Your task to perform on an android device: turn off location history Image 0: 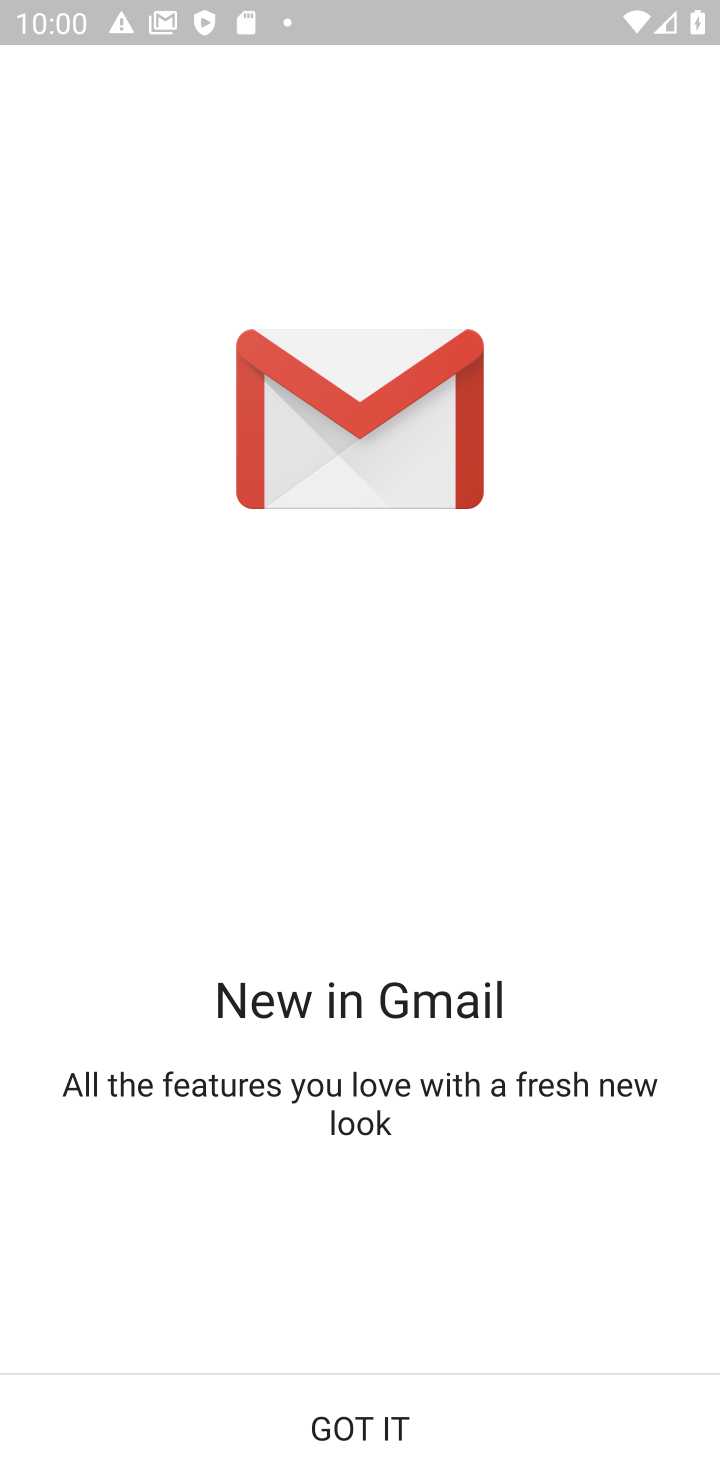
Step 0: press home button
Your task to perform on an android device: turn off location history Image 1: 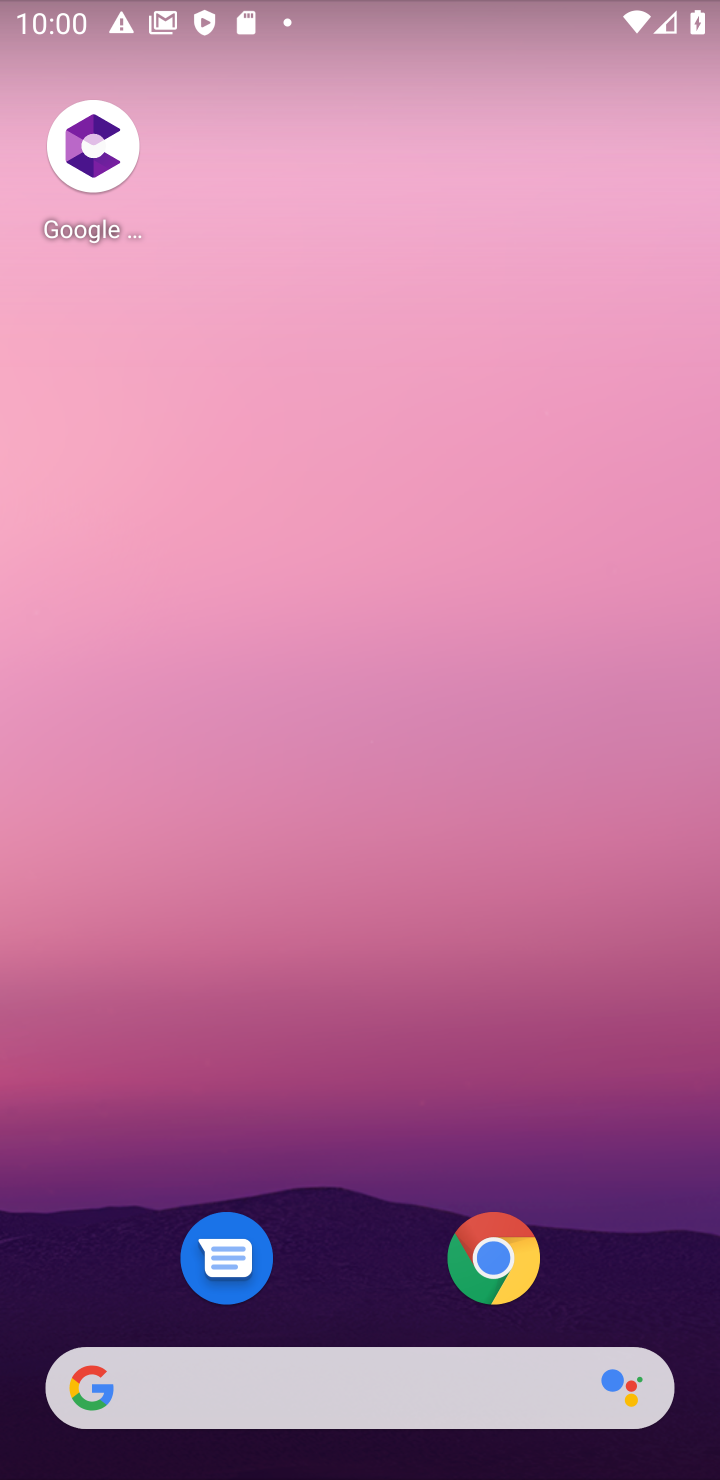
Step 1: drag from (329, 1300) to (405, 35)
Your task to perform on an android device: turn off location history Image 2: 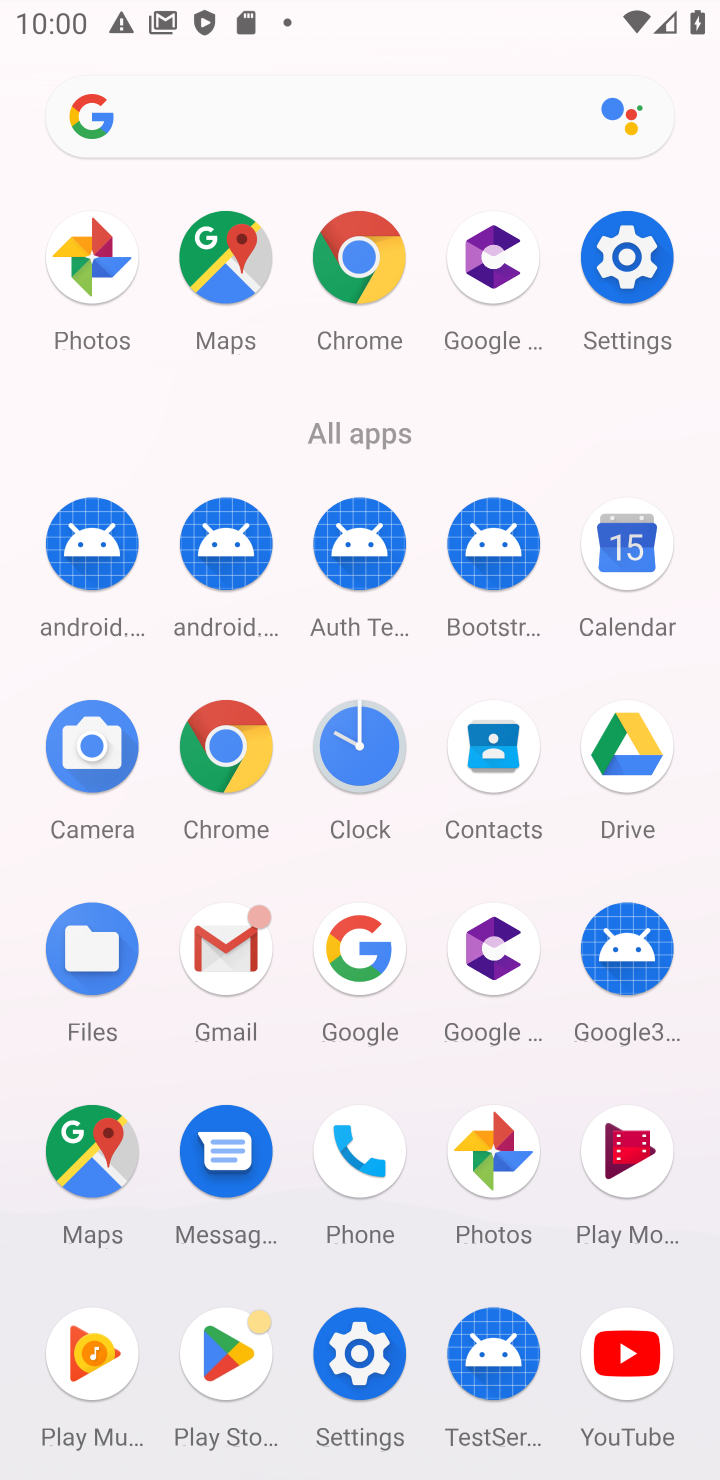
Step 2: click (366, 1350)
Your task to perform on an android device: turn off location history Image 3: 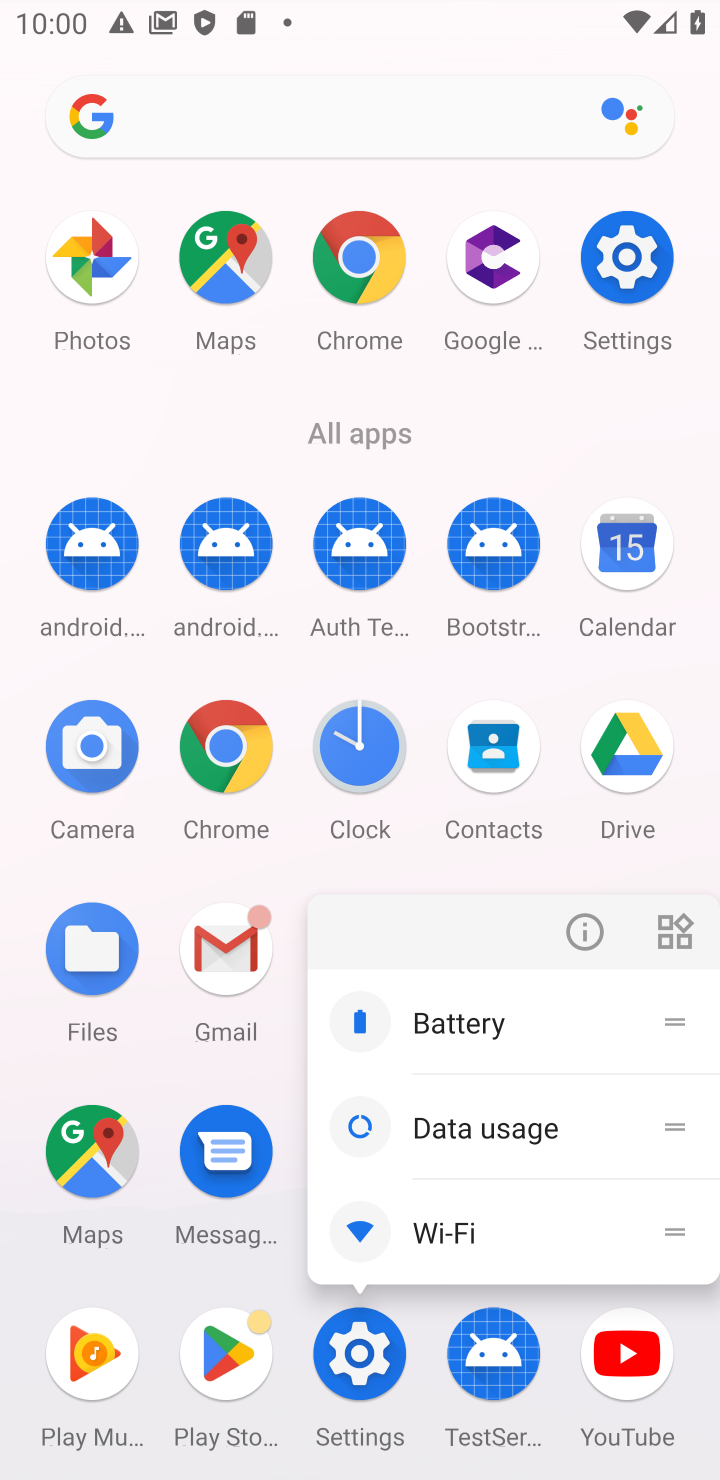
Step 3: click (355, 1348)
Your task to perform on an android device: turn off location history Image 4: 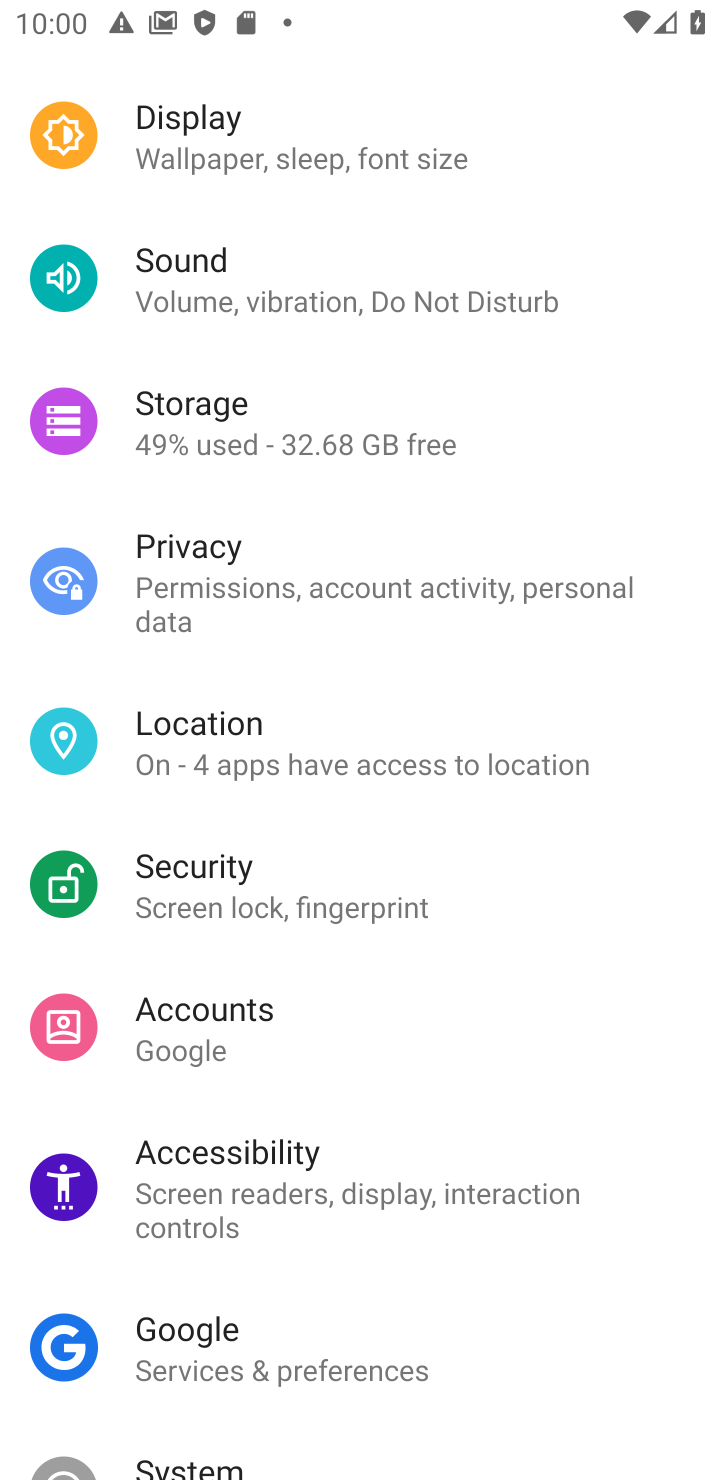
Step 4: drag from (309, 1330) to (379, 328)
Your task to perform on an android device: turn off location history Image 5: 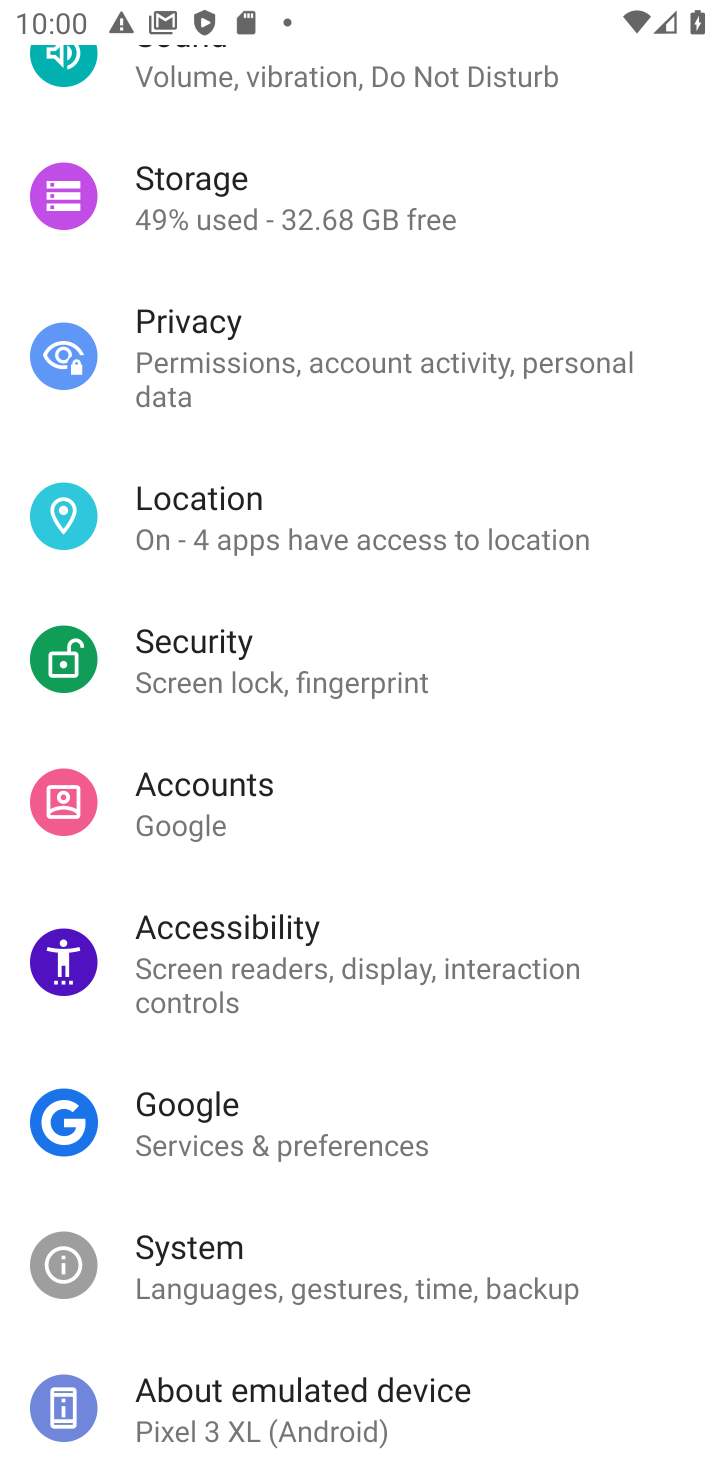
Step 5: click (239, 514)
Your task to perform on an android device: turn off location history Image 6: 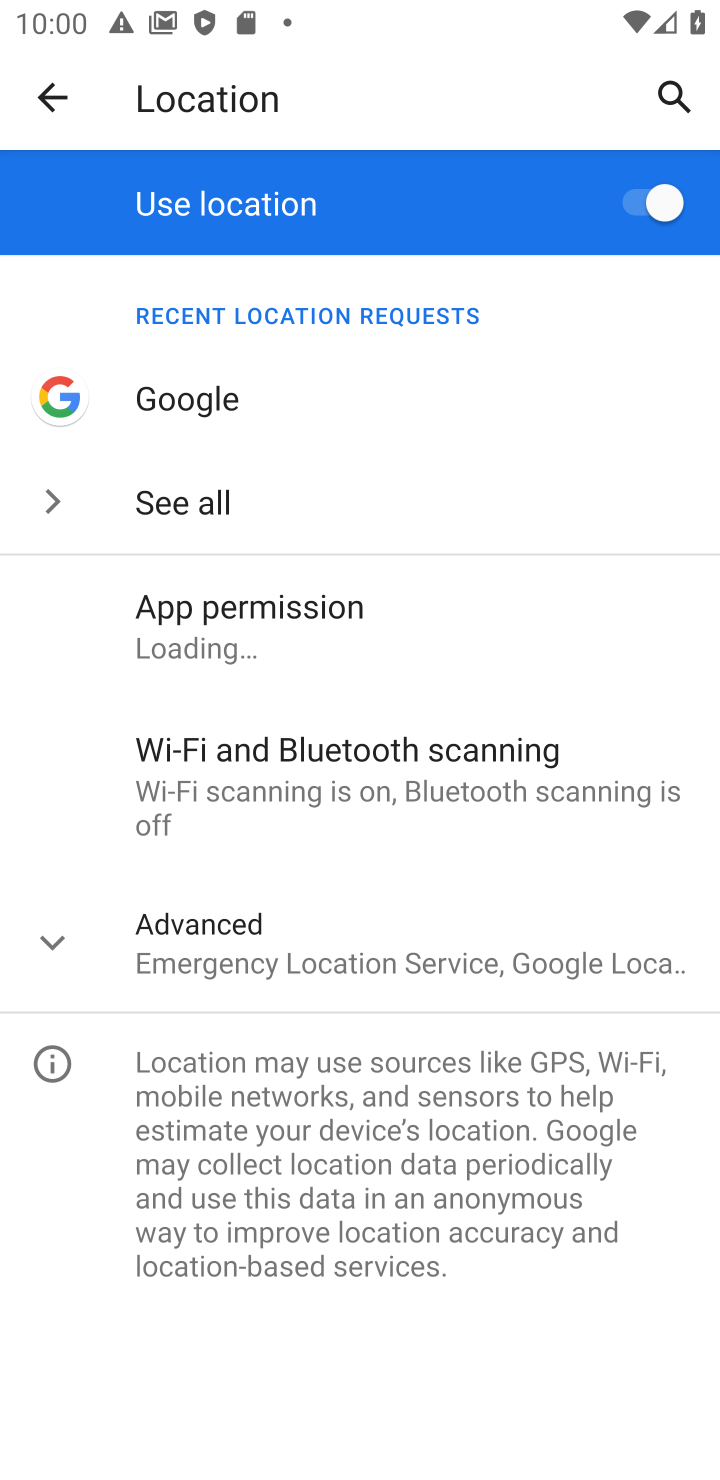
Step 6: click (239, 937)
Your task to perform on an android device: turn off location history Image 7: 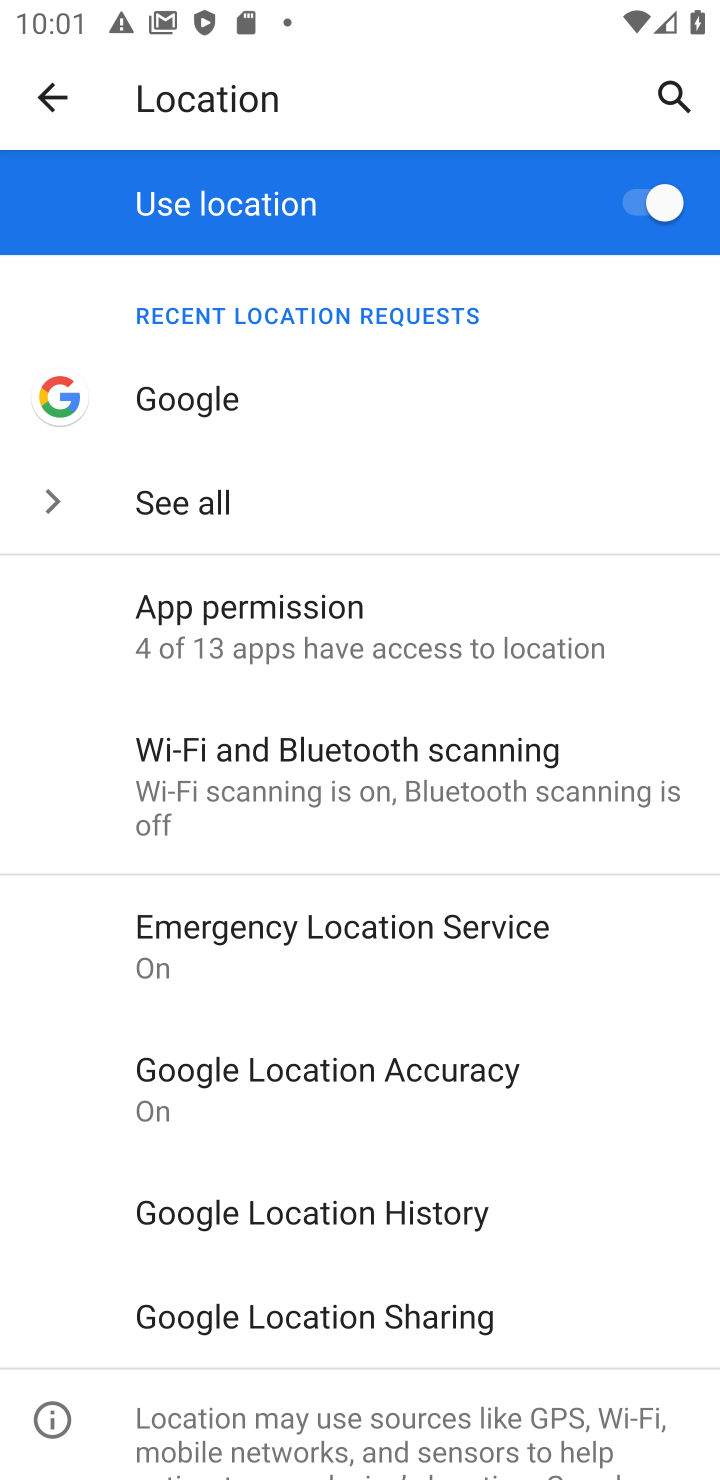
Step 7: click (337, 1222)
Your task to perform on an android device: turn off location history Image 8: 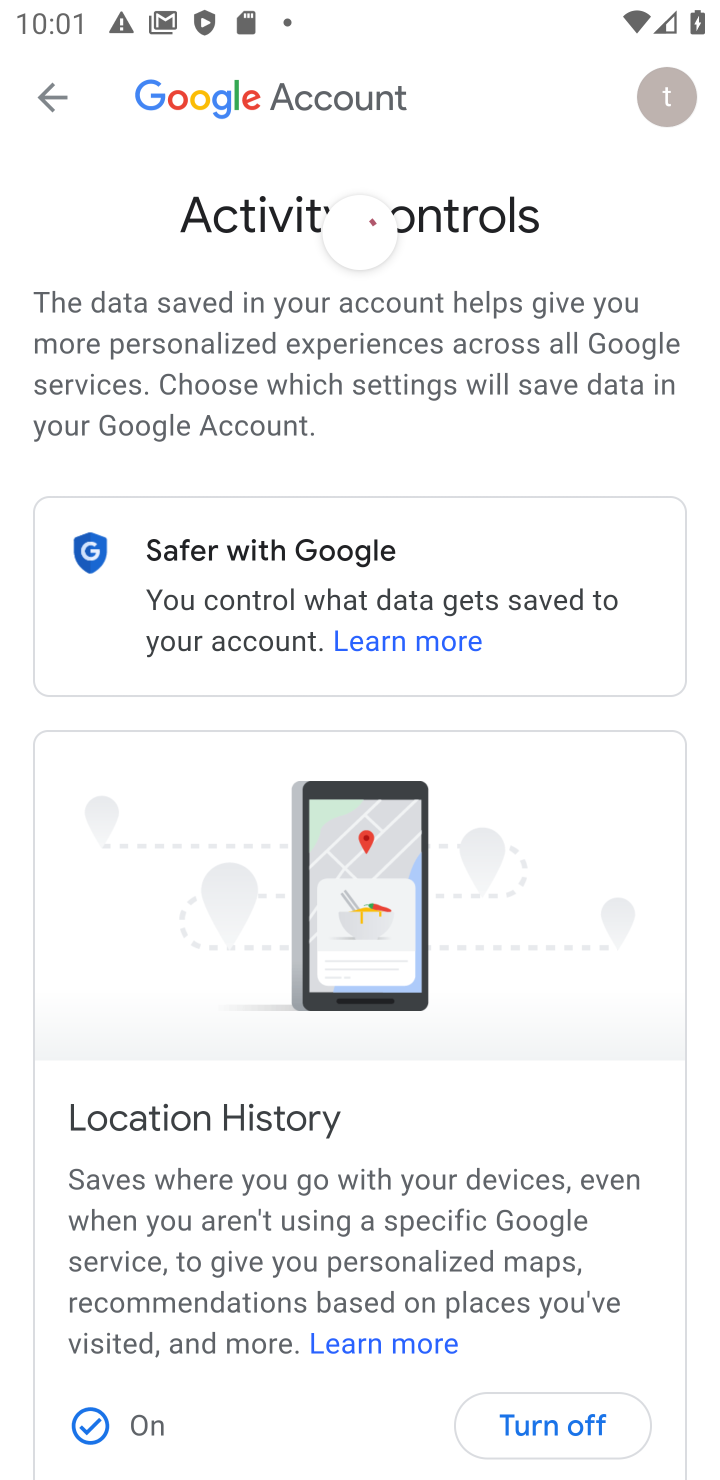
Step 8: drag from (391, 1080) to (401, 511)
Your task to perform on an android device: turn off location history Image 9: 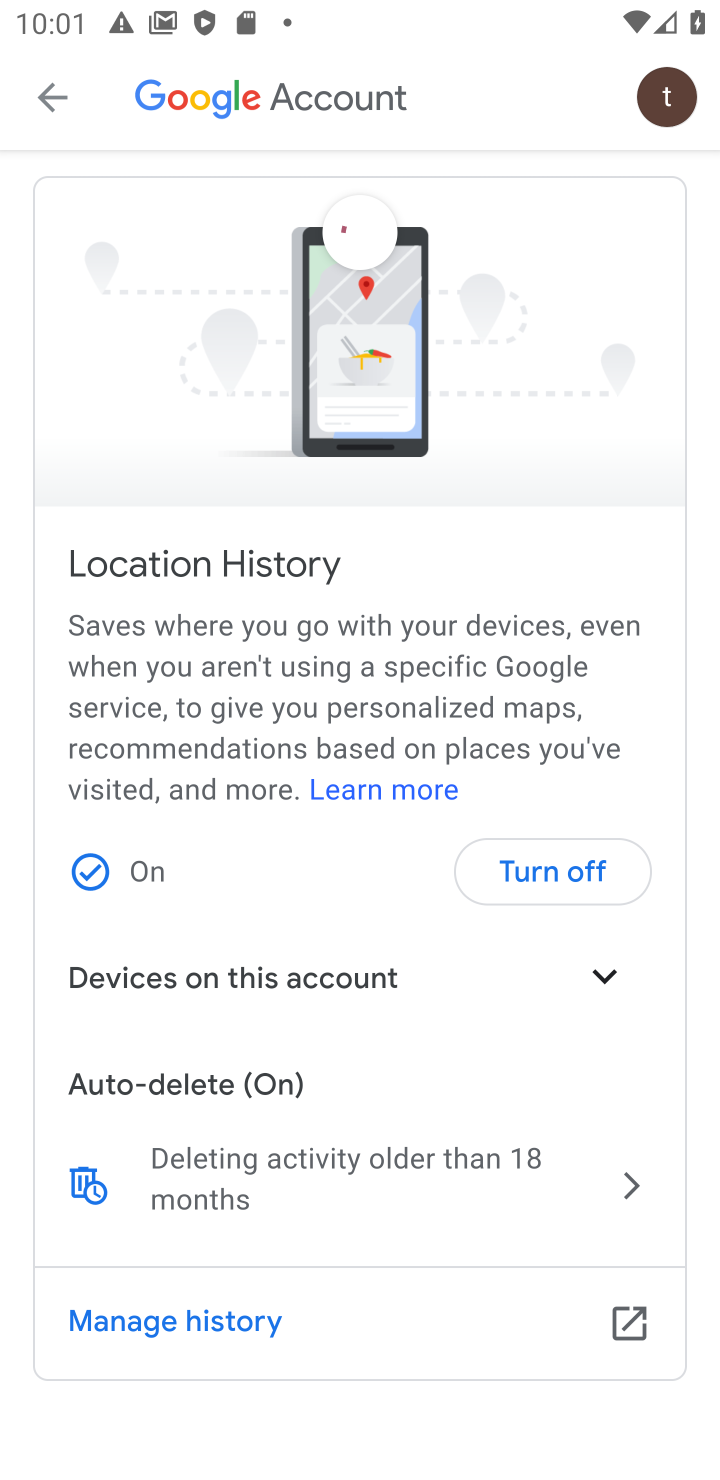
Step 9: click (548, 851)
Your task to perform on an android device: turn off location history Image 10: 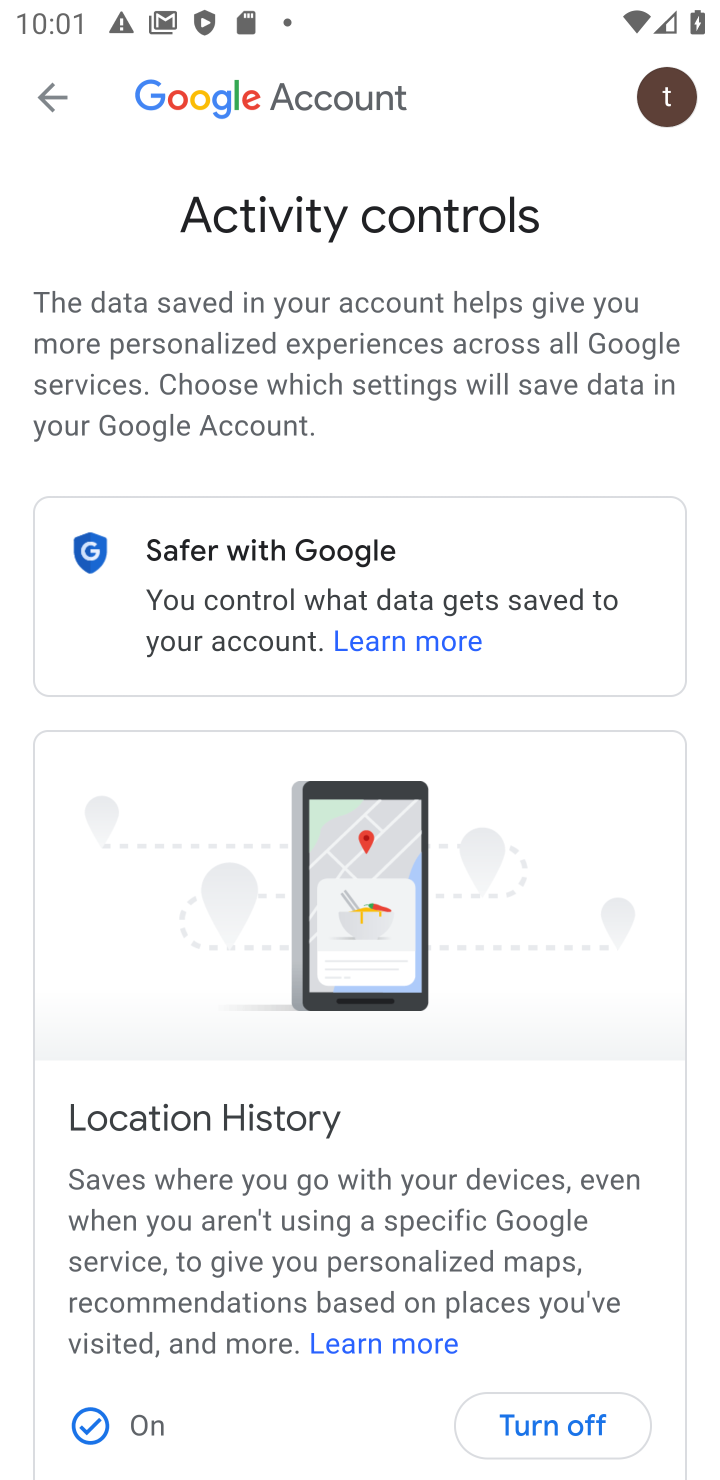
Step 10: click (571, 1420)
Your task to perform on an android device: turn off location history Image 11: 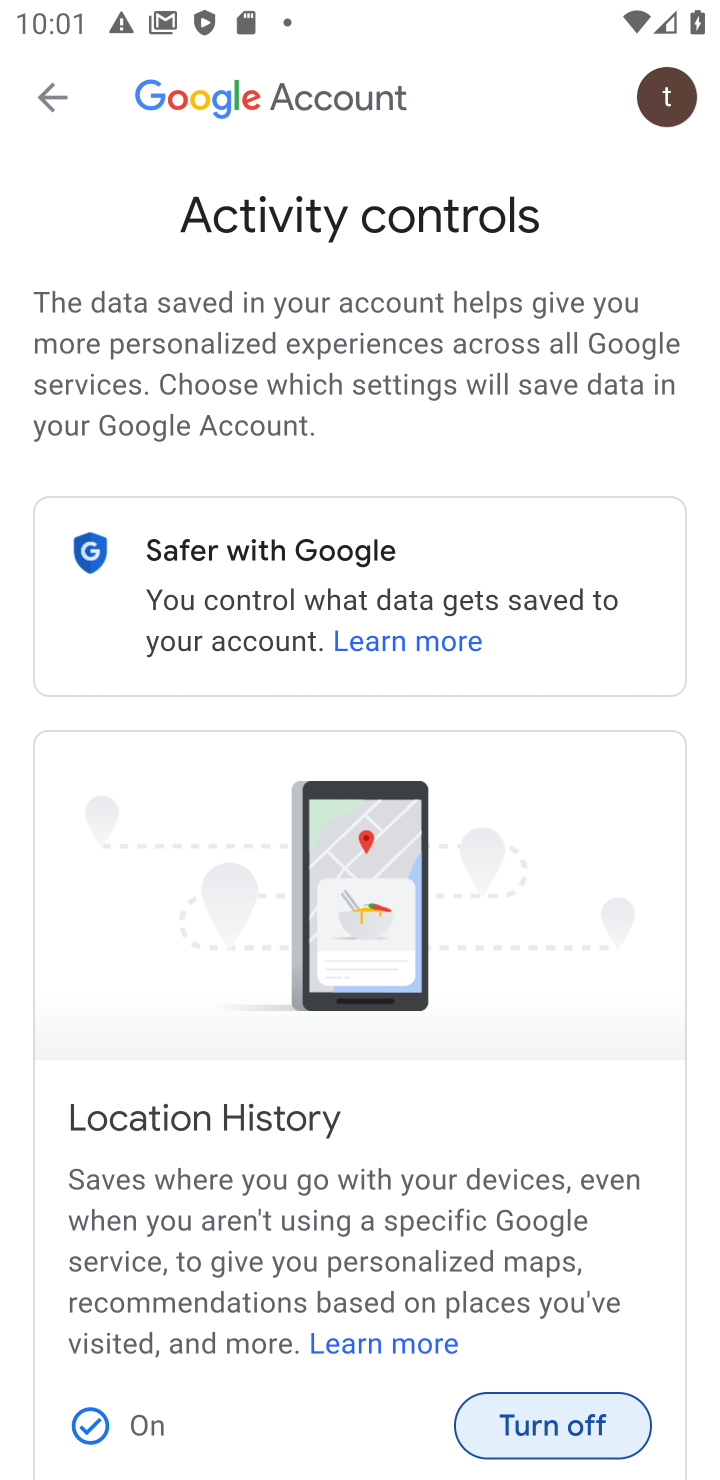
Step 11: click (521, 1421)
Your task to perform on an android device: turn off location history Image 12: 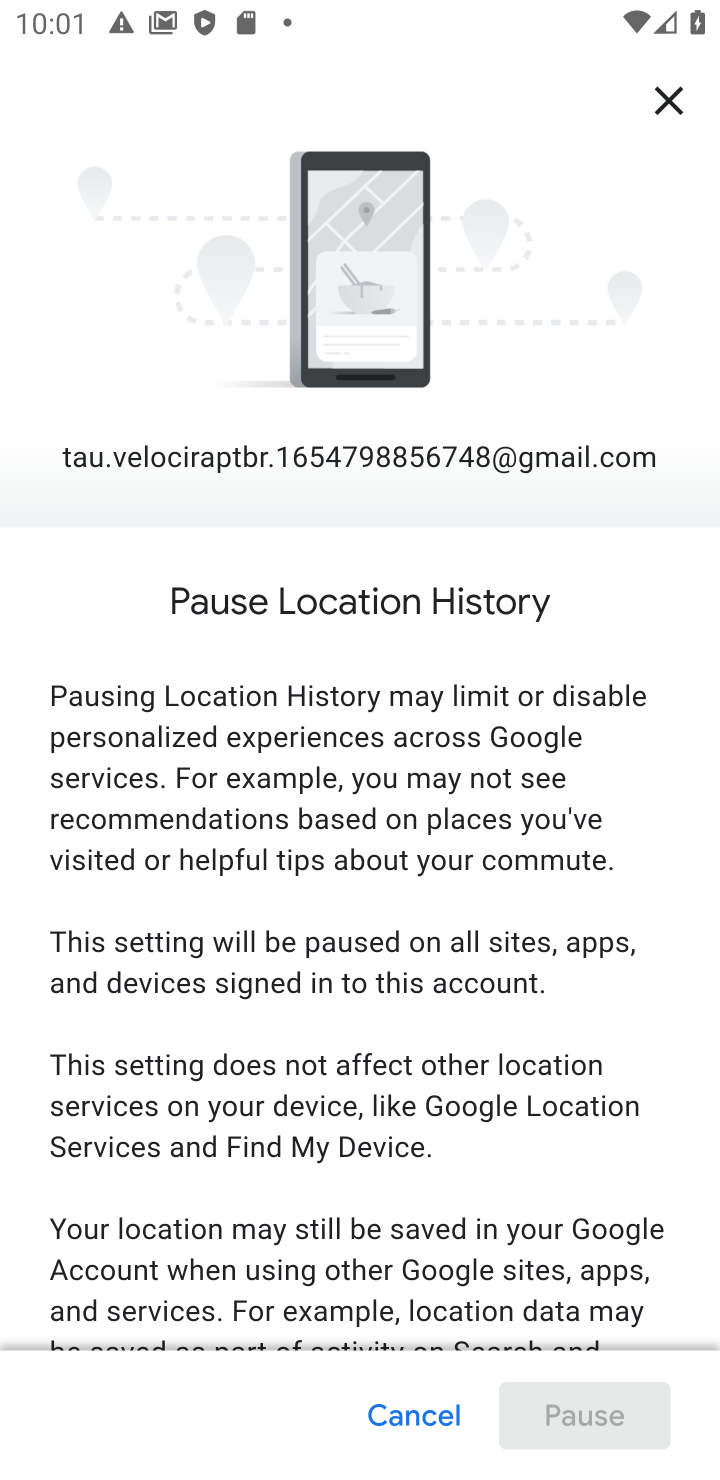
Step 12: drag from (301, 1181) to (360, 423)
Your task to perform on an android device: turn off location history Image 13: 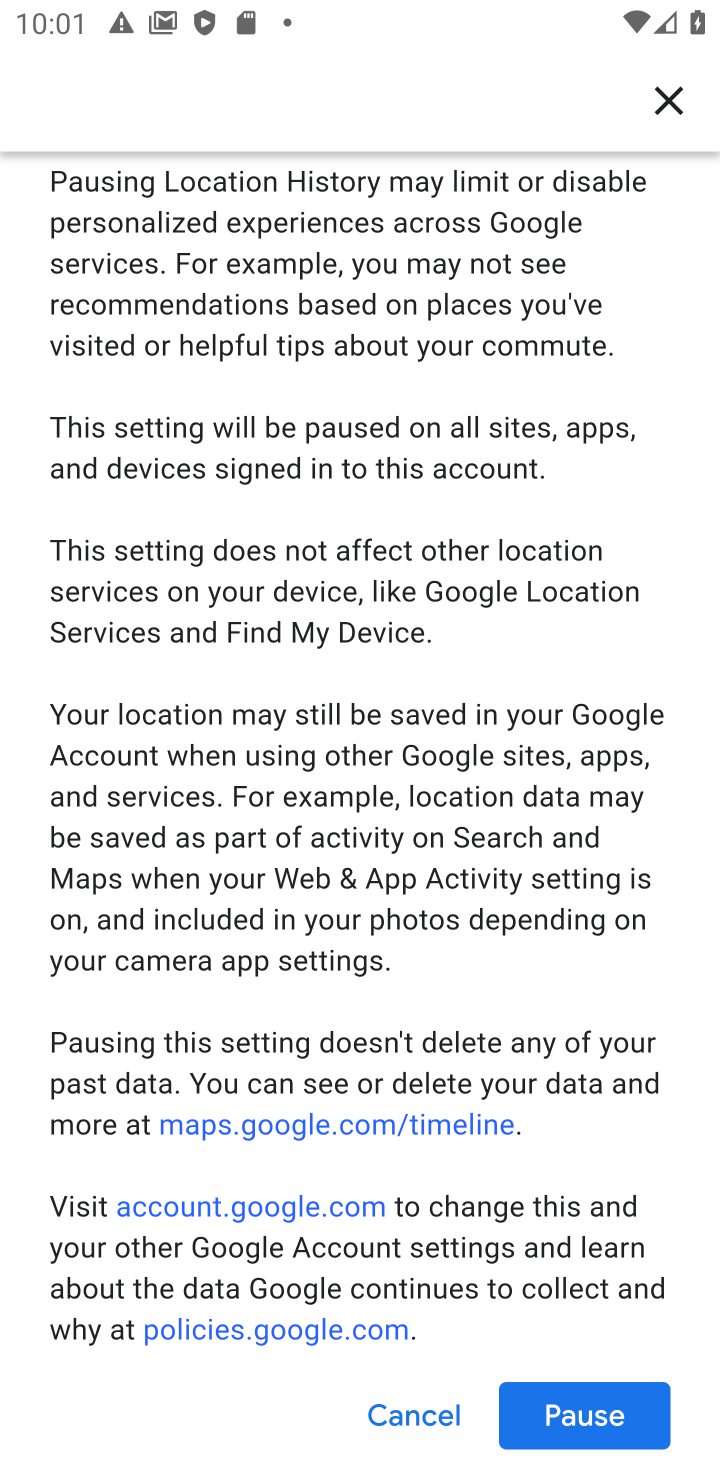
Step 13: click (604, 1410)
Your task to perform on an android device: turn off location history Image 14: 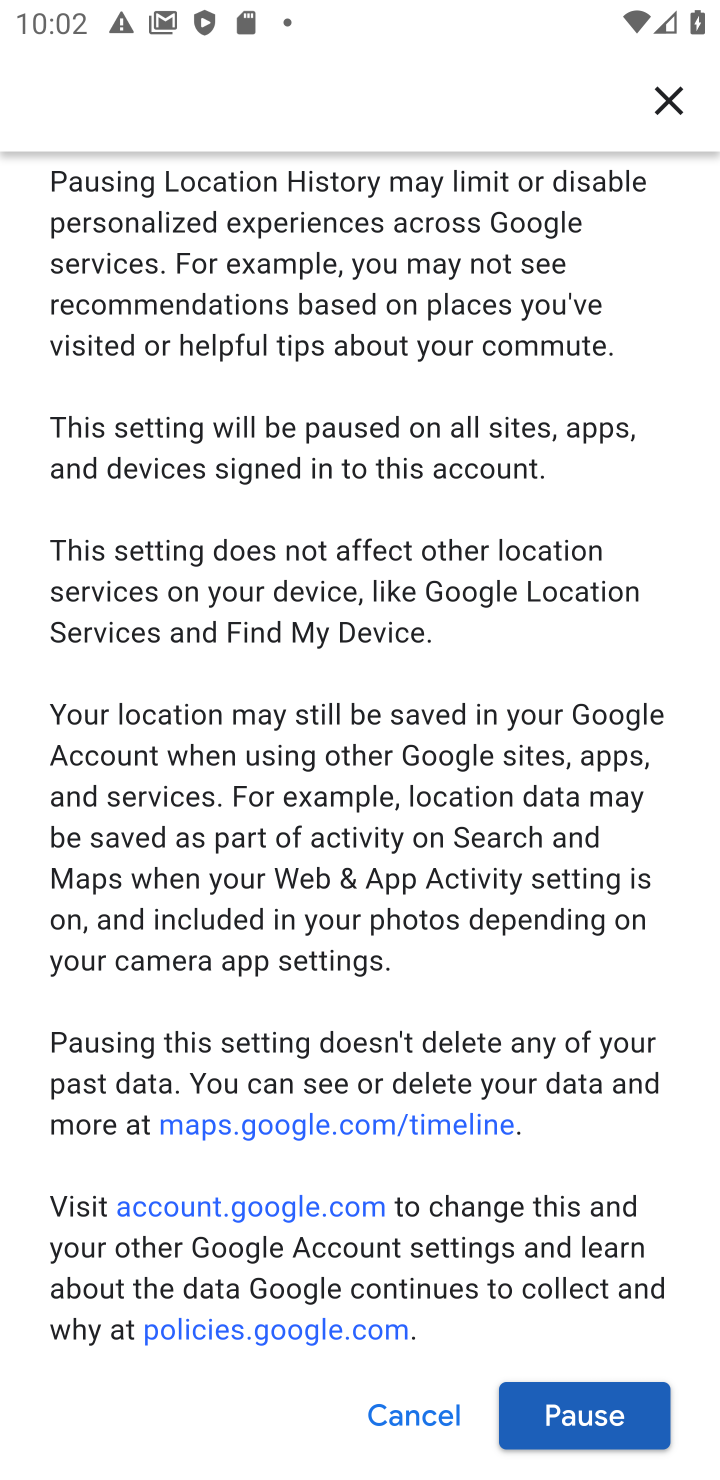
Step 14: click (640, 1404)
Your task to perform on an android device: turn off location history Image 15: 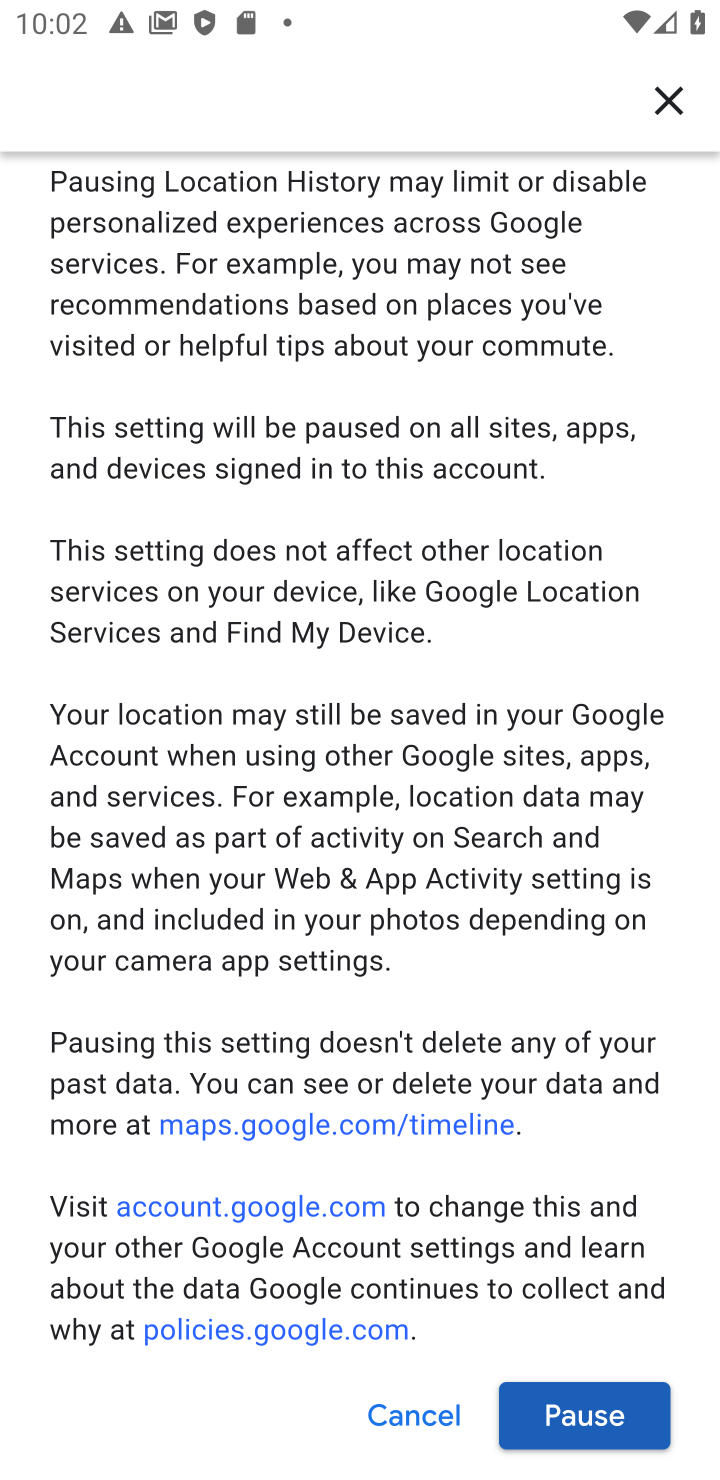
Step 15: click (600, 1428)
Your task to perform on an android device: turn off location history Image 16: 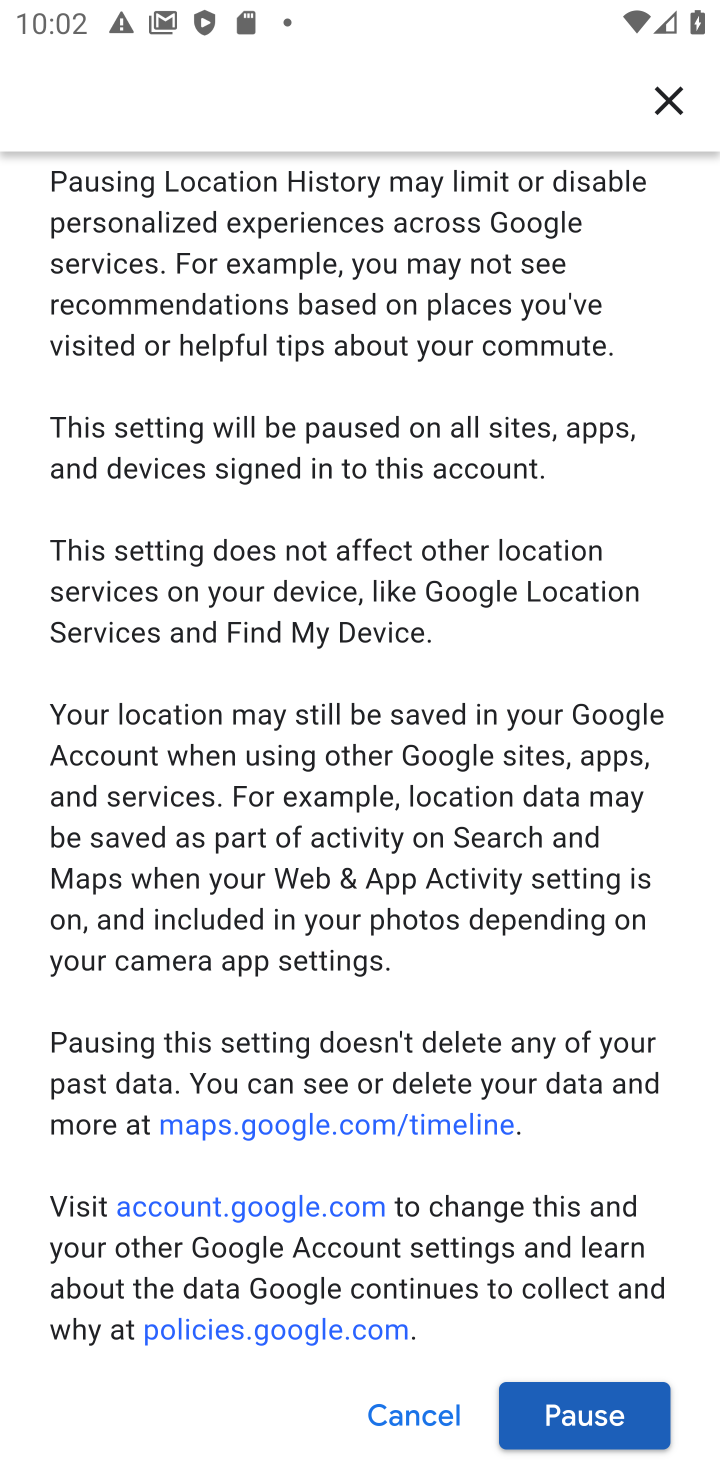
Step 16: click (597, 1424)
Your task to perform on an android device: turn off location history Image 17: 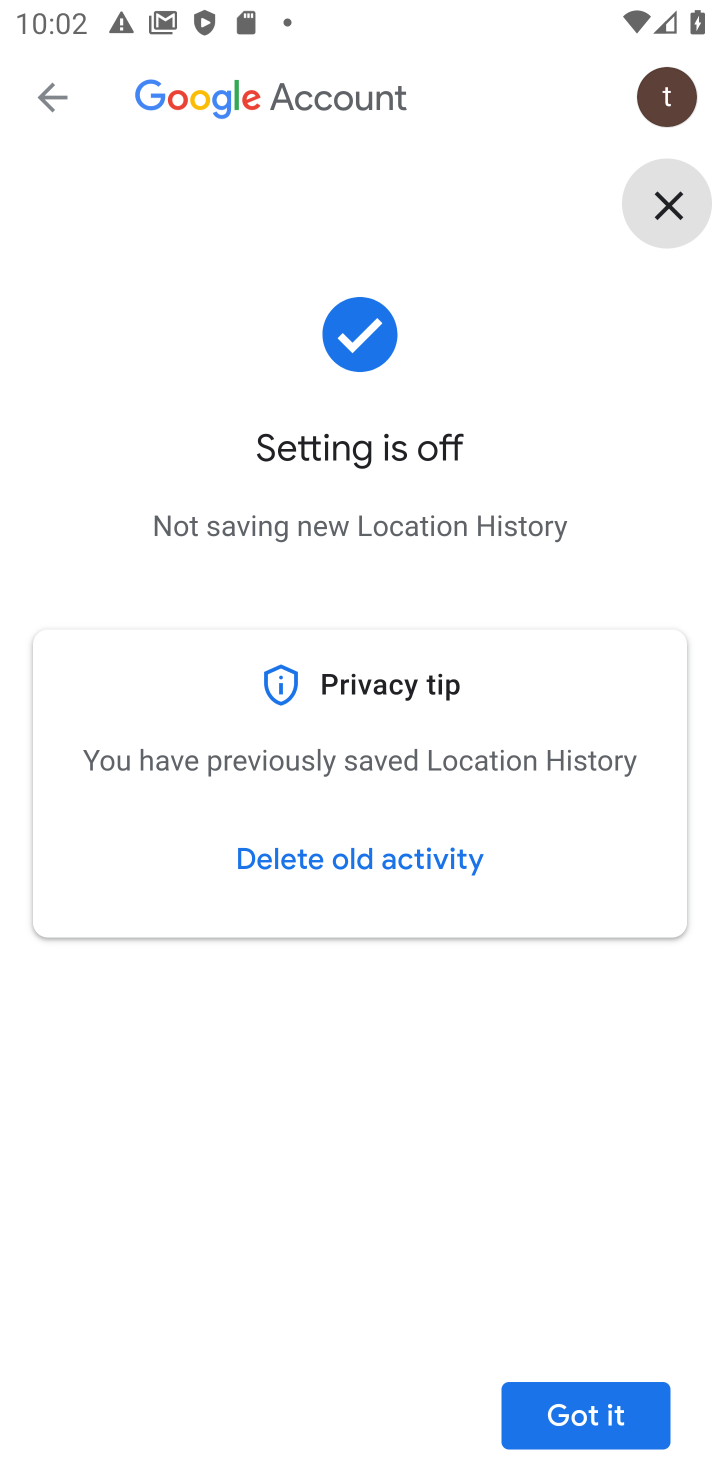
Step 17: click (573, 1433)
Your task to perform on an android device: turn off location history Image 18: 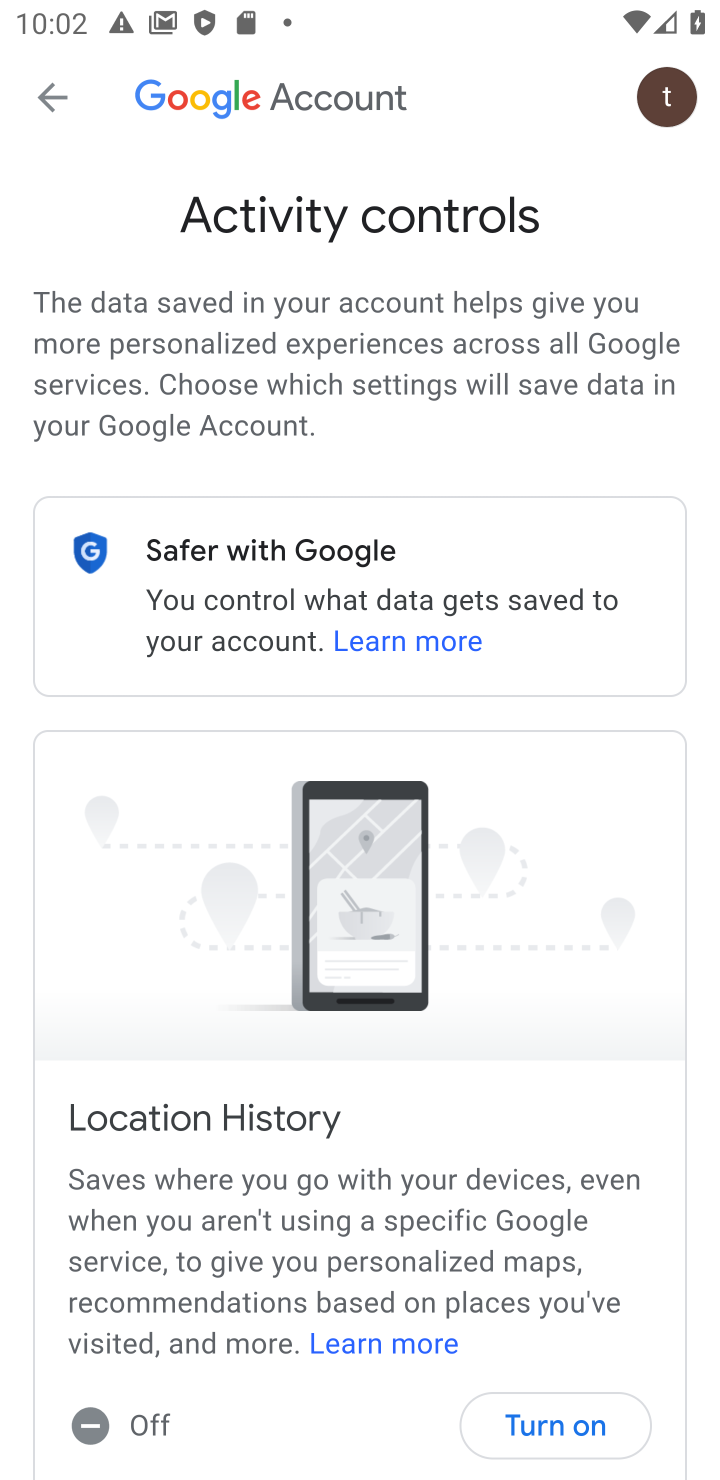
Step 18: task complete